Your task to perform on an android device: Is it going to rain this weekend? Image 0: 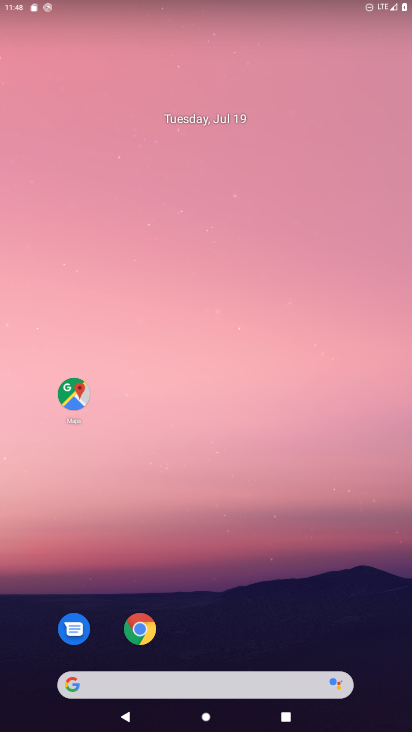
Step 0: drag from (188, 616) to (204, 241)
Your task to perform on an android device: Is it going to rain this weekend? Image 1: 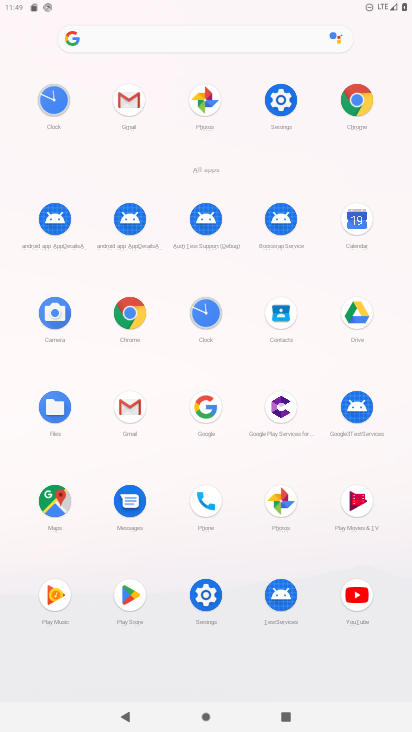
Step 1: click (205, 403)
Your task to perform on an android device: Is it going to rain this weekend? Image 2: 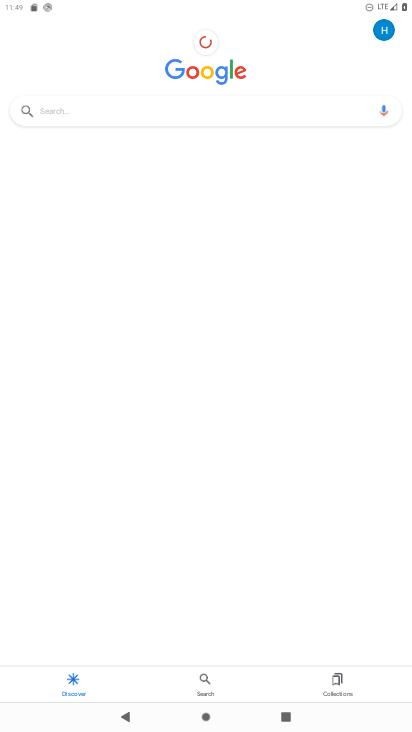
Step 2: click (150, 112)
Your task to perform on an android device: Is it going to rain this weekend? Image 3: 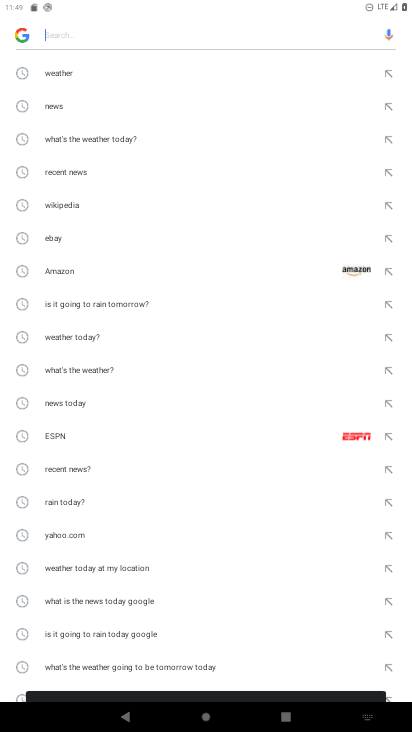
Step 3: click (66, 83)
Your task to perform on an android device: Is it going to rain this weekend? Image 4: 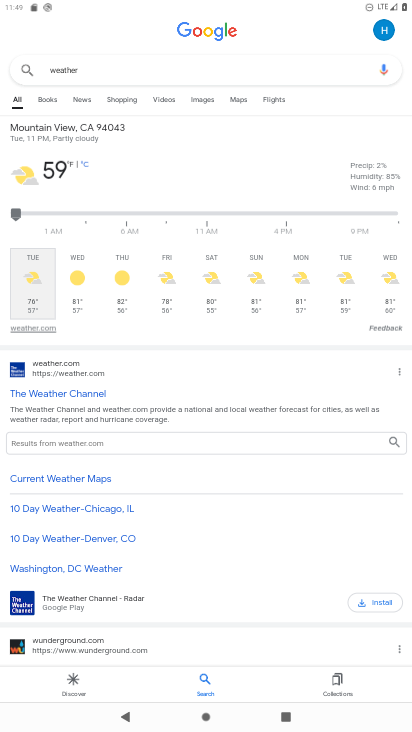
Step 4: click (31, 324)
Your task to perform on an android device: Is it going to rain this weekend? Image 5: 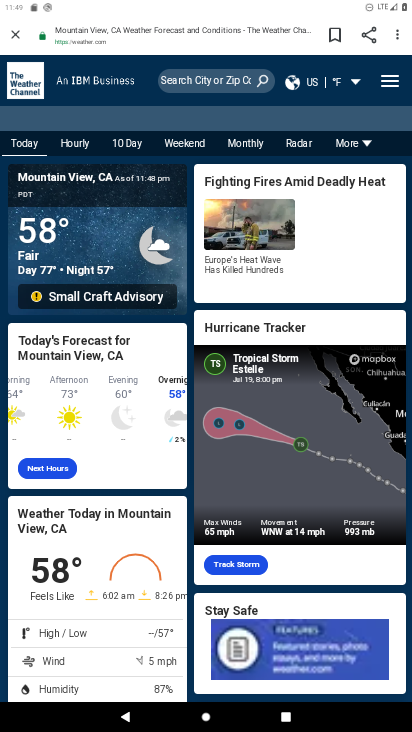
Step 5: click (181, 143)
Your task to perform on an android device: Is it going to rain this weekend? Image 6: 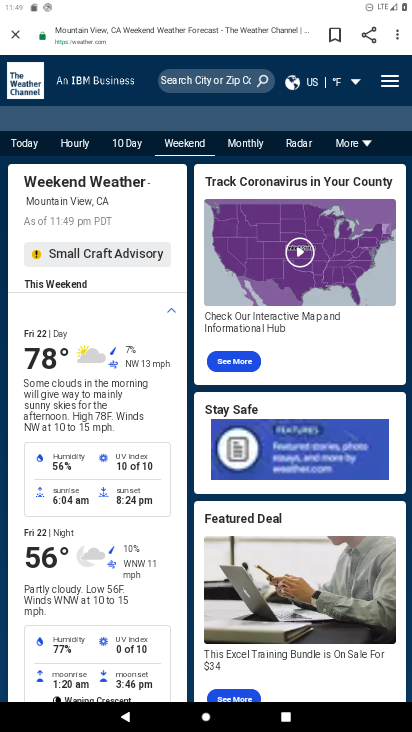
Step 6: task complete